Your task to perform on an android device: Go to location settings Image 0: 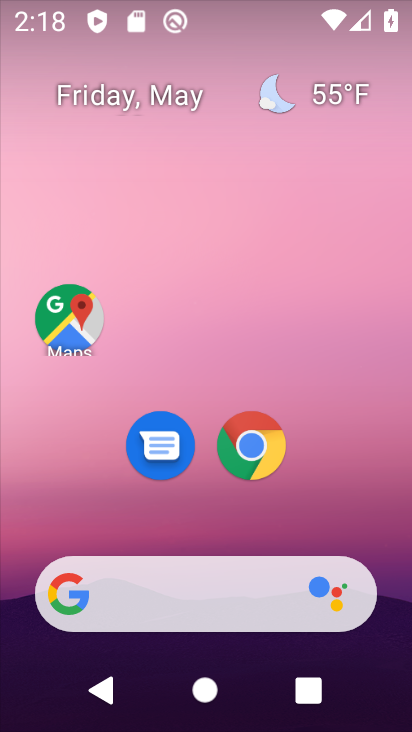
Step 0: drag from (389, 527) to (326, 80)
Your task to perform on an android device: Go to location settings Image 1: 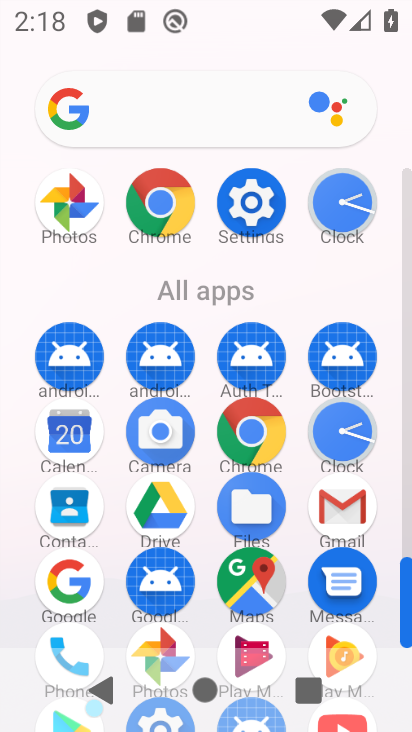
Step 1: click (271, 210)
Your task to perform on an android device: Go to location settings Image 2: 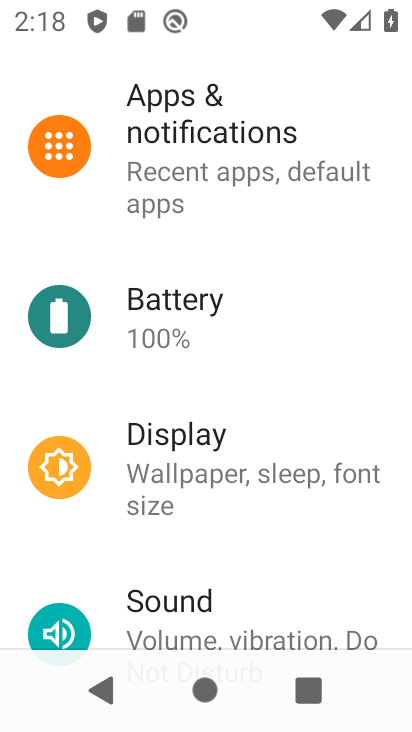
Step 2: drag from (284, 553) to (292, 235)
Your task to perform on an android device: Go to location settings Image 3: 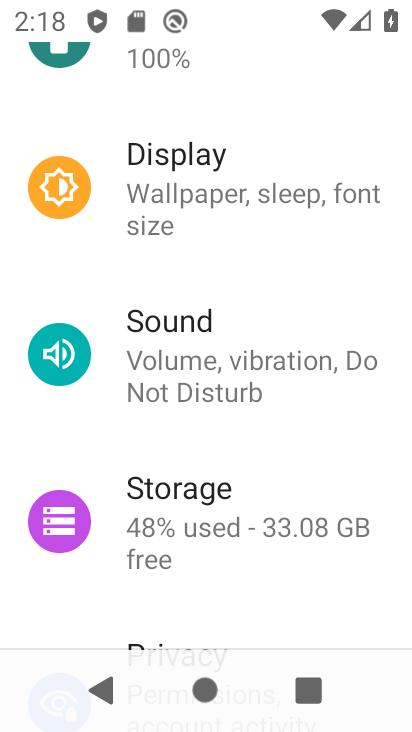
Step 3: drag from (296, 488) to (291, 239)
Your task to perform on an android device: Go to location settings Image 4: 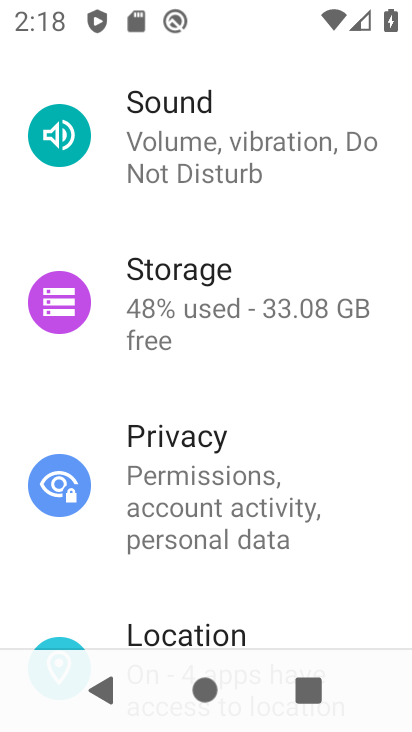
Step 4: drag from (296, 559) to (285, 283)
Your task to perform on an android device: Go to location settings Image 5: 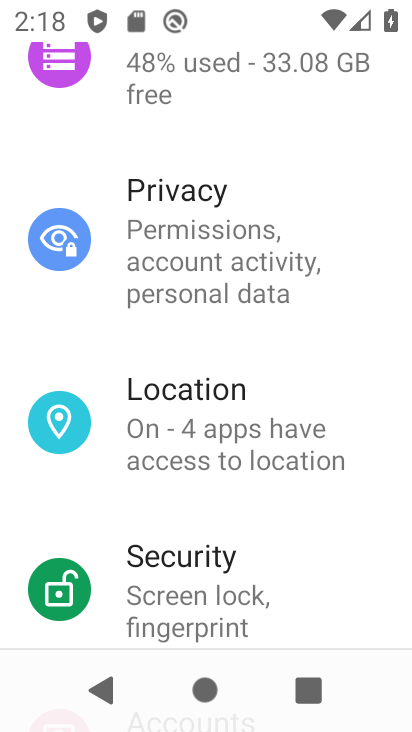
Step 5: click (232, 406)
Your task to perform on an android device: Go to location settings Image 6: 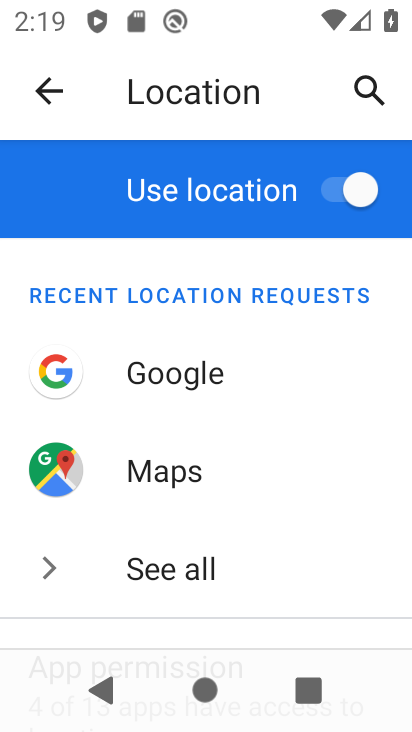
Step 6: task complete